Your task to perform on an android device: turn off location history Image 0: 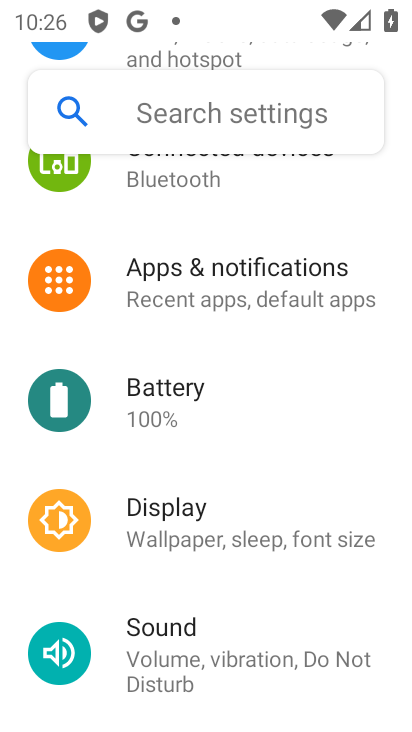
Step 0: drag from (217, 616) to (247, 271)
Your task to perform on an android device: turn off location history Image 1: 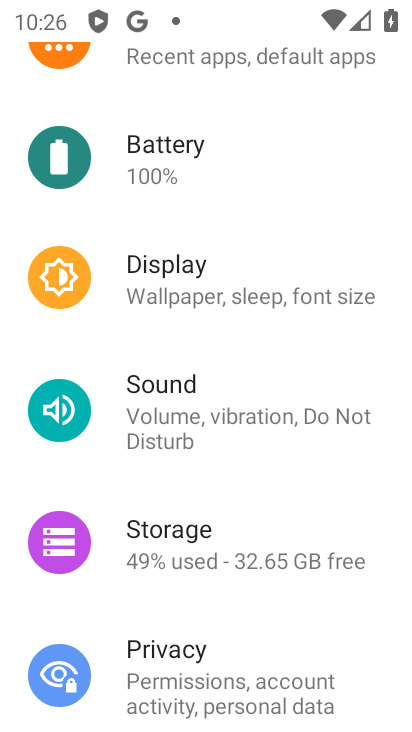
Step 1: drag from (236, 610) to (251, 228)
Your task to perform on an android device: turn off location history Image 2: 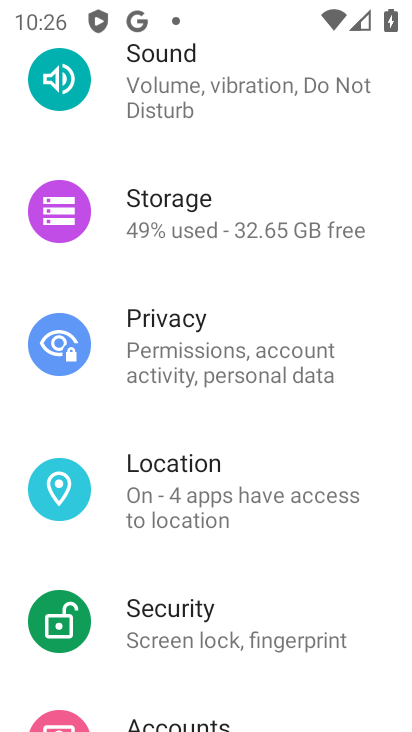
Step 2: click (234, 483)
Your task to perform on an android device: turn off location history Image 3: 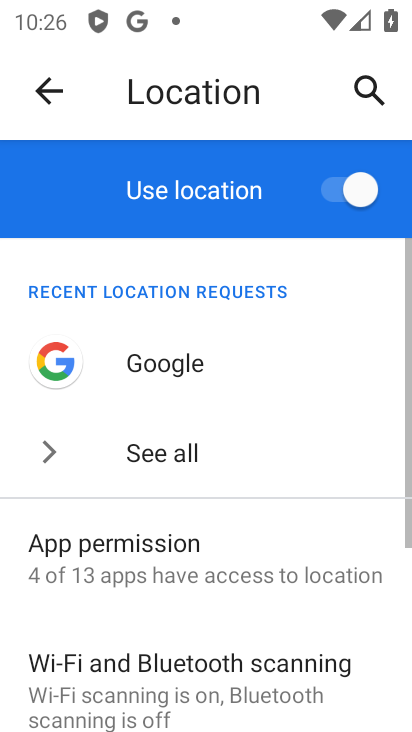
Step 3: drag from (265, 607) to (247, 264)
Your task to perform on an android device: turn off location history Image 4: 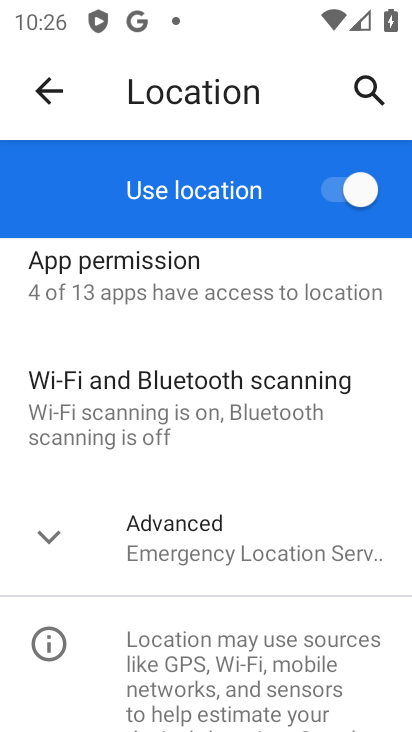
Step 4: click (209, 570)
Your task to perform on an android device: turn off location history Image 5: 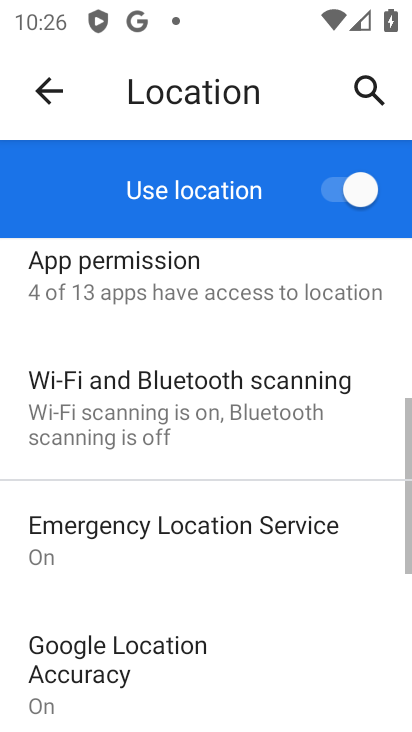
Step 5: drag from (208, 573) to (222, 248)
Your task to perform on an android device: turn off location history Image 6: 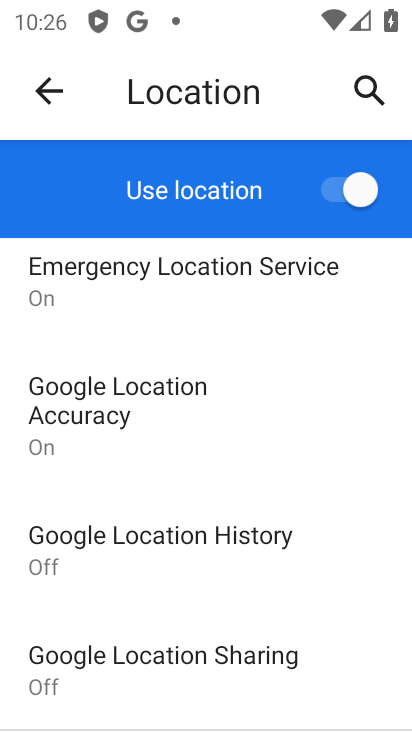
Step 6: click (229, 534)
Your task to perform on an android device: turn off location history Image 7: 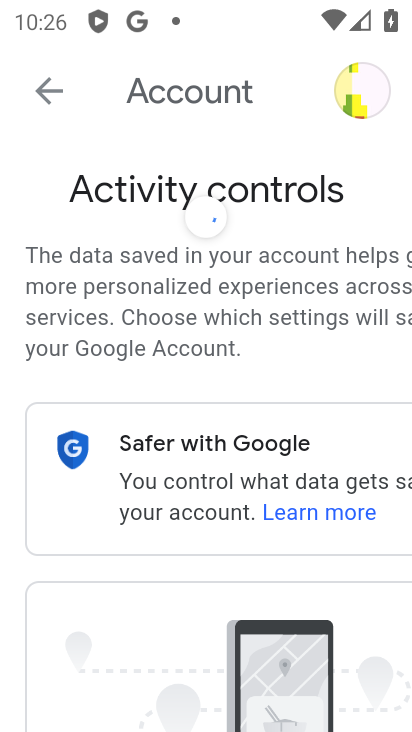
Step 7: task complete